Your task to perform on an android device: Go to ESPN.com Image 0: 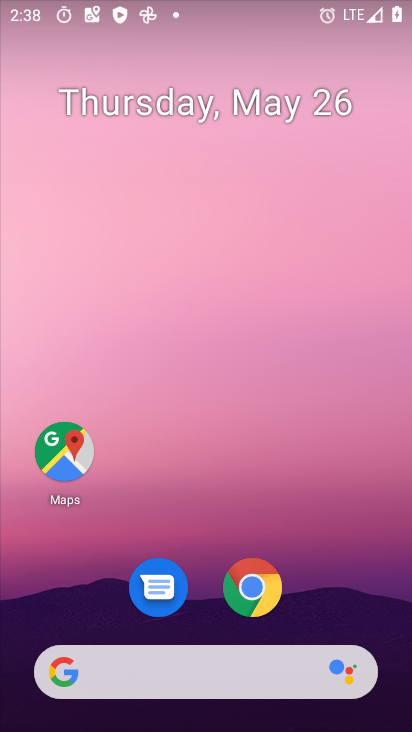
Step 0: drag from (386, 627) to (372, 251)
Your task to perform on an android device: Go to ESPN.com Image 1: 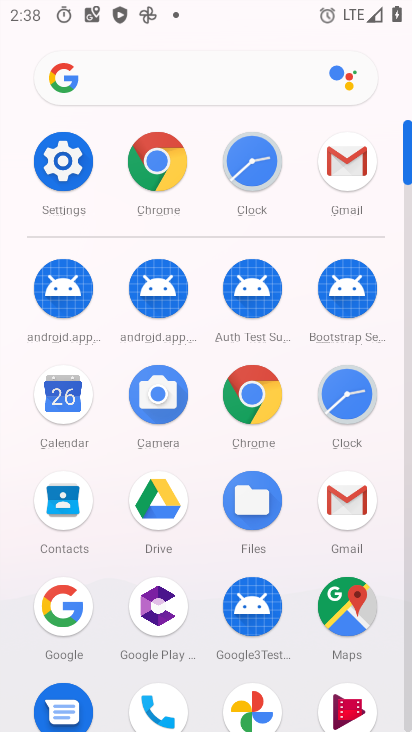
Step 1: click (254, 405)
Your task to perform on an android device: Go to ESPN.com Image 2: 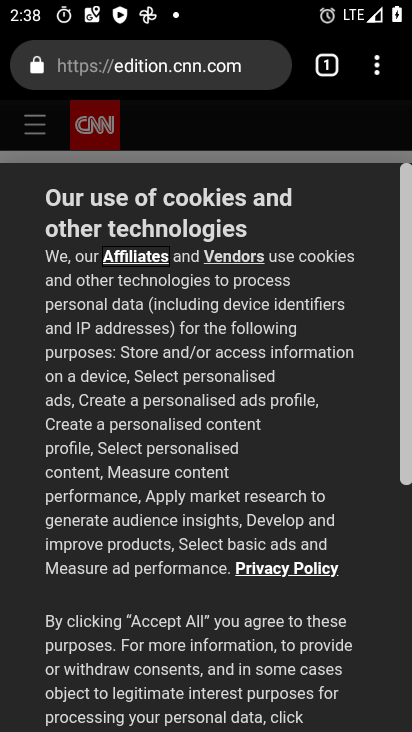
Step 2: click (202, 65)
Your task to perform on an android device: Go to ESPN.com Image 3: 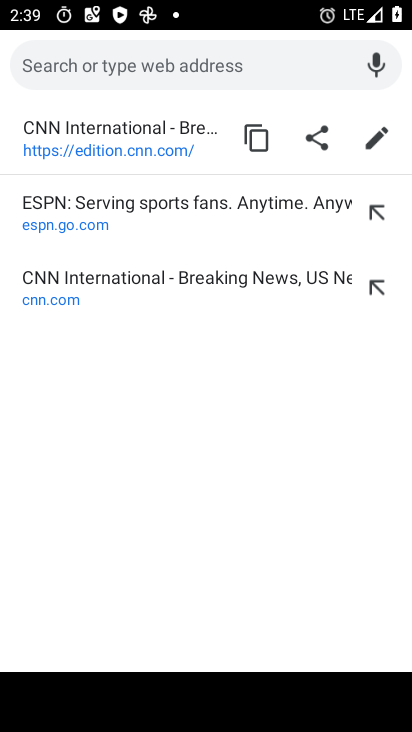
Step 3: type "espn.com"
Your task to perform on an android device: Go to ESPN.com Image 4: 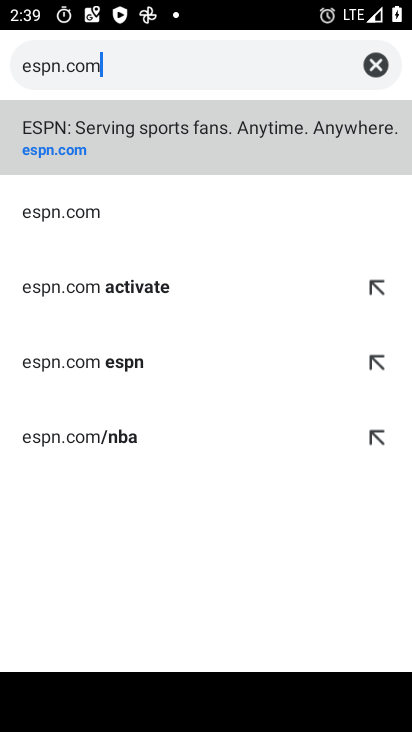
Step 4: click (122, 146)
Your task to perform on an android device: Go to ESPN.com Image 5: 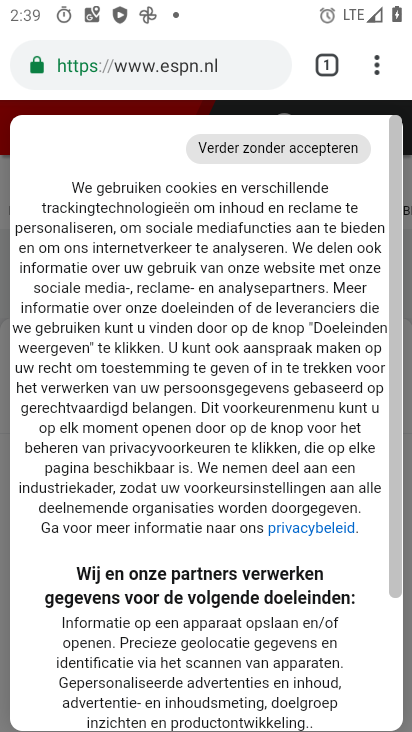
Step 5: task complete